Your task to perform on an android device: Open the calendar and show me this week's events? Image 0: 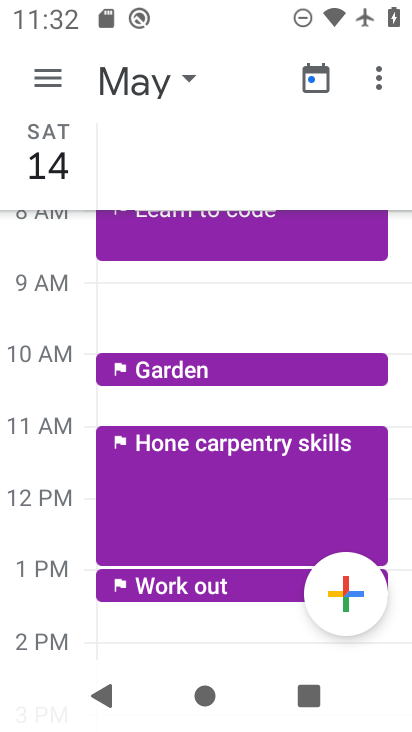
Step 0: click (54, 83)
Your task to perform on an android device: Open the calendar and show me this week's events? Image 1: 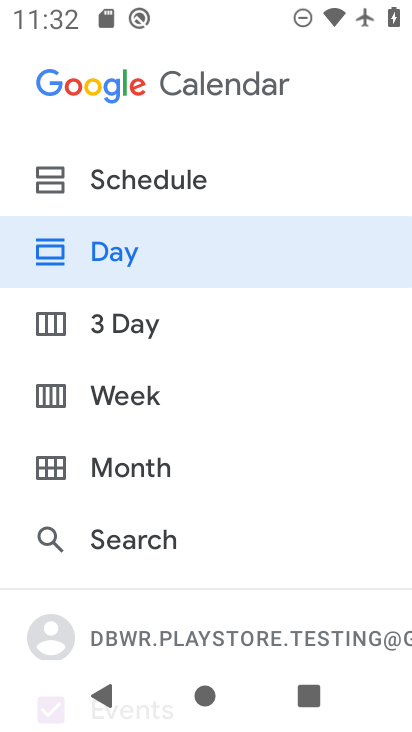
Step 1: click (142, 393)
Your task to perform on an android device: Open the calendar and show me this week's events? Image 2: 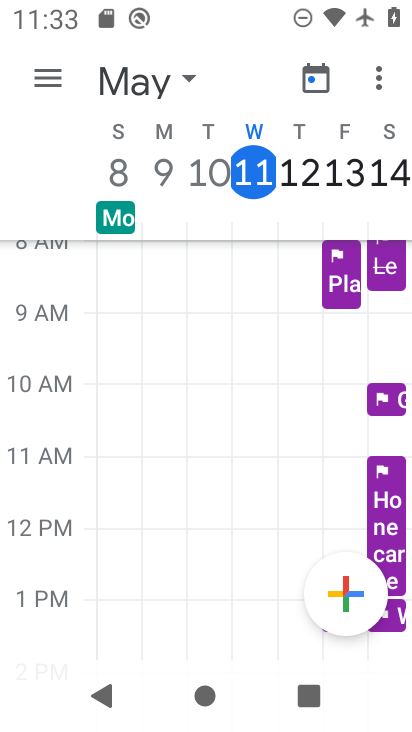
Step 2: task complete